Your task to perform on an android device: Open the map Image 0: 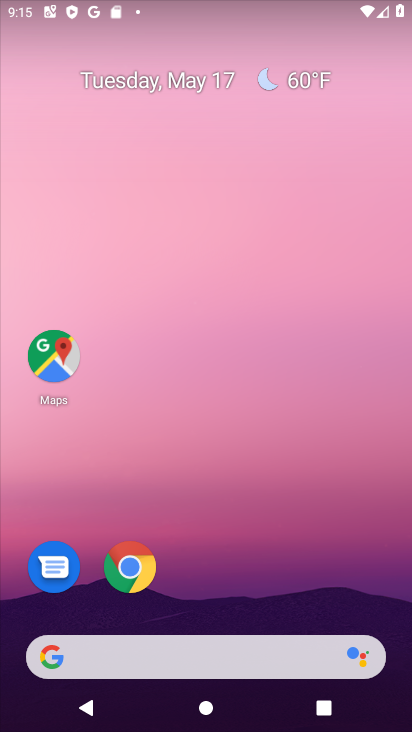
Step 0: drag from (368, 604) to (306, 62)
Your task to perform on an android device: Open the map Image 1: 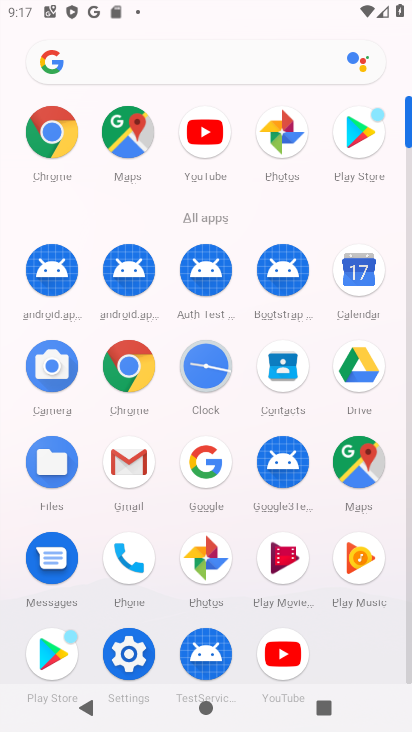
Step 1: click (378, 474)
Your task to perform on an android device: Open the map Image 2: 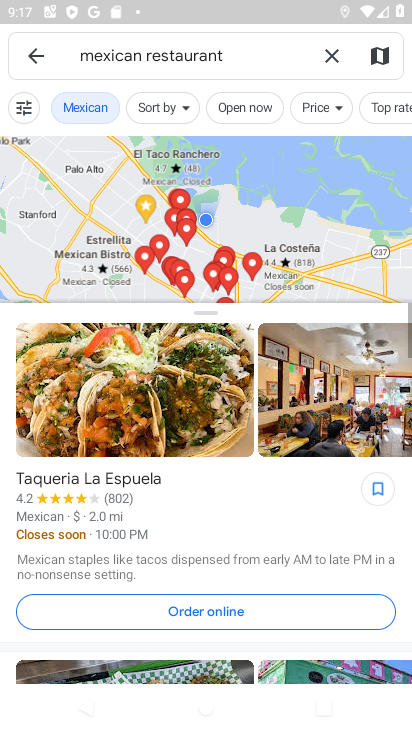
Step 2: click (328, 51)
Your task to perform on an android device: Open the map Image 3: 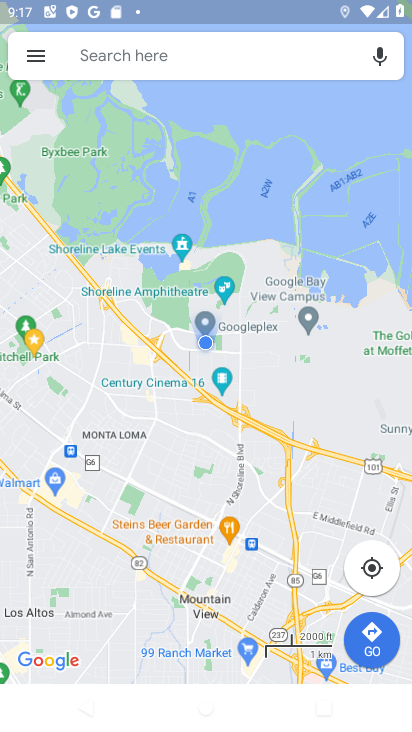
Step 3: task complete